Your task to perform on an android device: remove spam from my inbox in the gmail app Image 0: 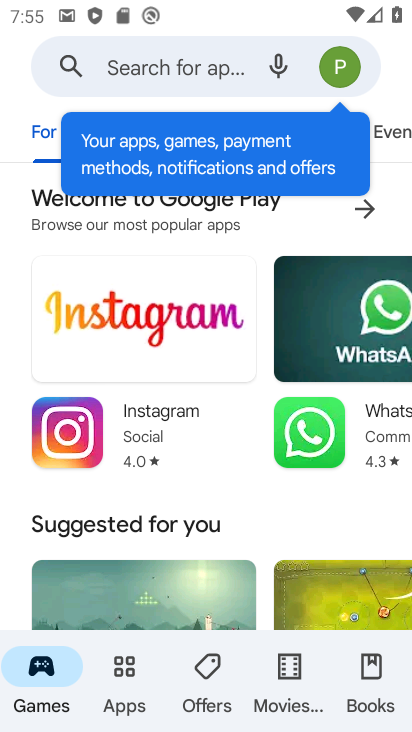
Step 0: press home button
Your task to perform on an android device: remove spam from my inbox in the gmail app Image 1: 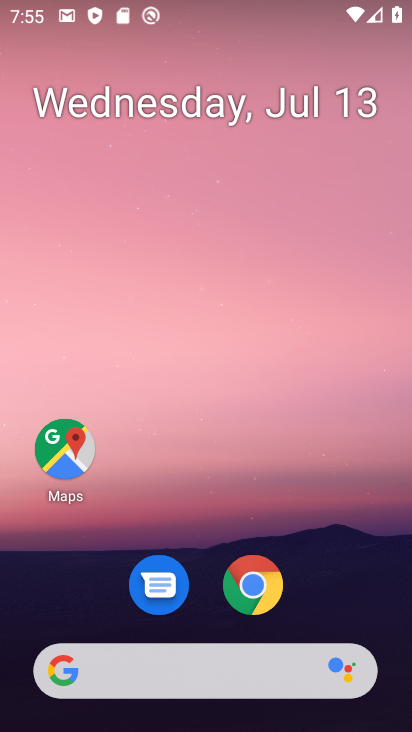
Step 1: drag from (323, 583) to (257, 23)
Your task to perform on an android device: remove spam from my inbox in the gmail app Image 2: 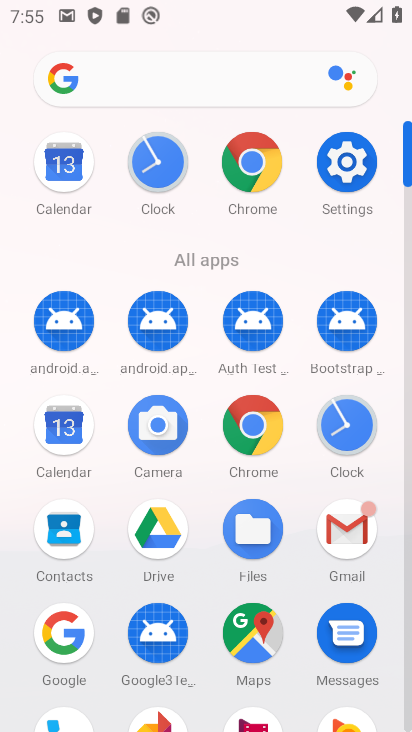
Step 2: click (349, 525)
Your task to perform on an android device: remove spam from my inbox in the gmail app Image 3: 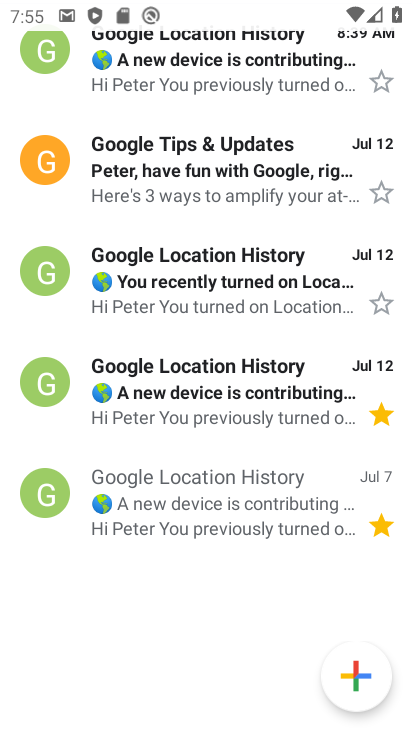
Step 3: drag from (212, 206) to (258, 596)
Your task to perform on an android device: remove spam from my inbox in the gmail app Image 4: 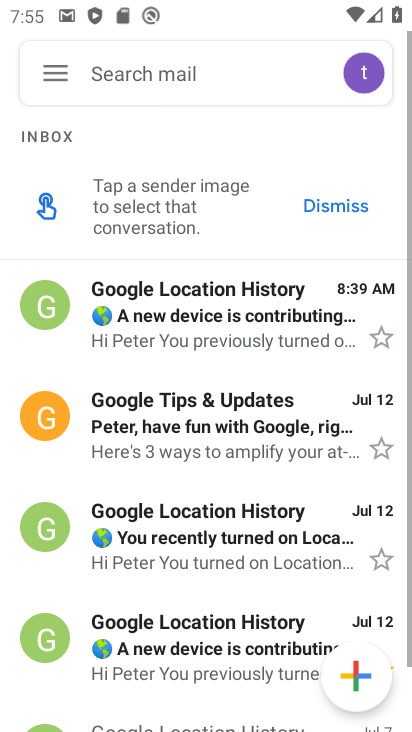
Step 4: click (54, 67)
Your task to perform on an android device: remove spam from my inbox in the gmail app Image 5: 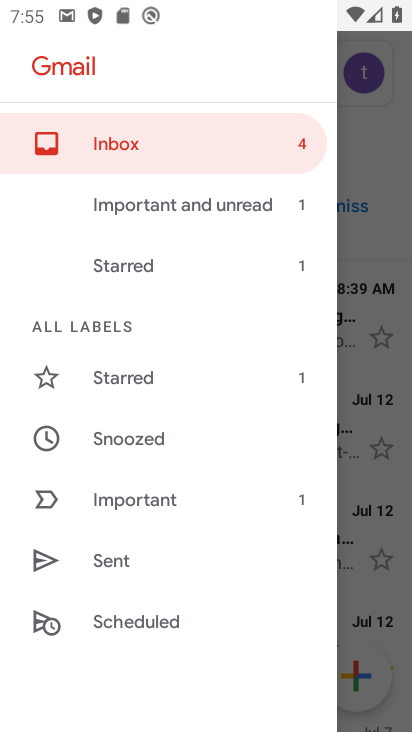
Step 5: drag from (190, 510) to (183, 199)
Your task to perform on an android device: remove spam from my inbox in the gmail app Image 6: 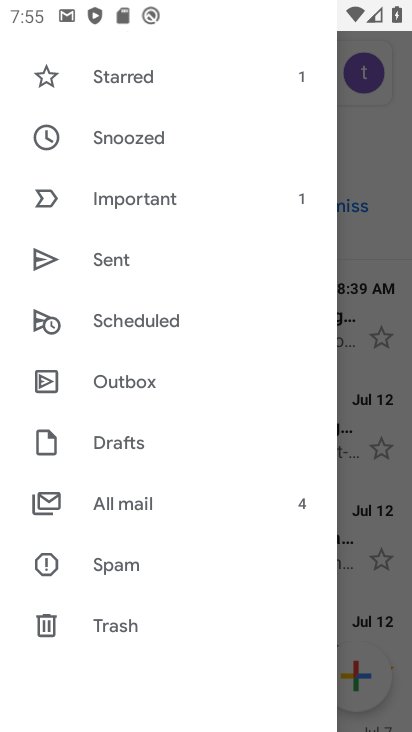
Step 6: click (123, 555)
Your task to perform on an android device: remove spam from my inbox in the gmail app Image 7: 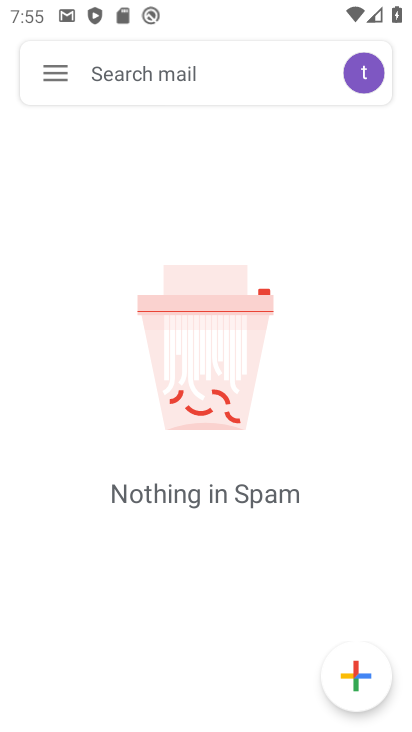
Step 7: task complete